Your task to perform on an android device: toggle show notifications on the lock screen Image 0: 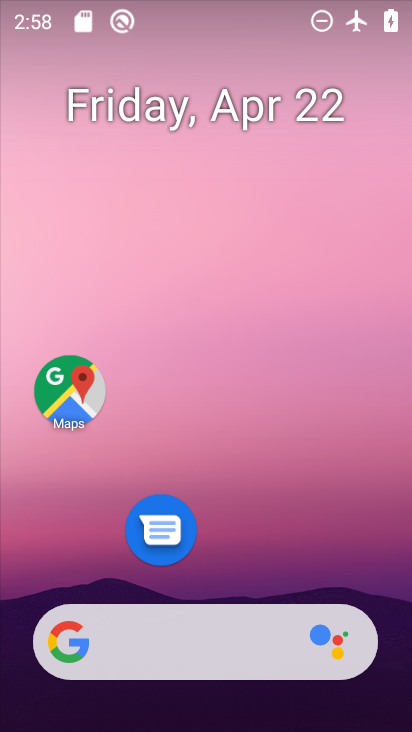
Step 0: drag from (299, 526) to (303, 4)
Your task to perform on an android device: toggle show notifications on the lock screen Image 1: 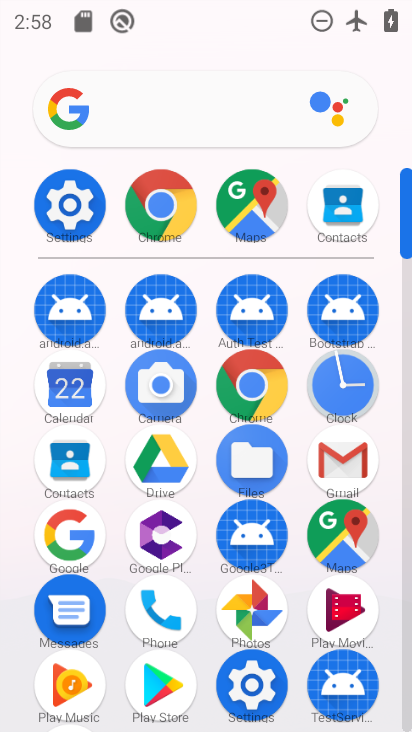
Step 1: click (65, 213)
Your task to perform on an android device: toggle show notifications on the lock screen Image 2: 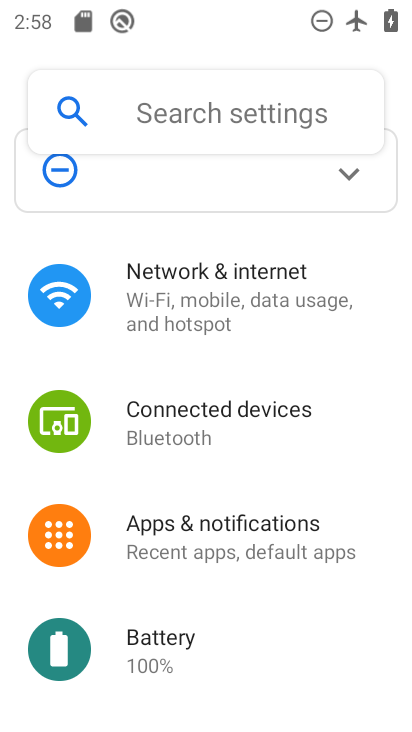
Step 2: click (211, 525)
Your task to perform on an android device: toggle show notifications on the lock screen Image 3: 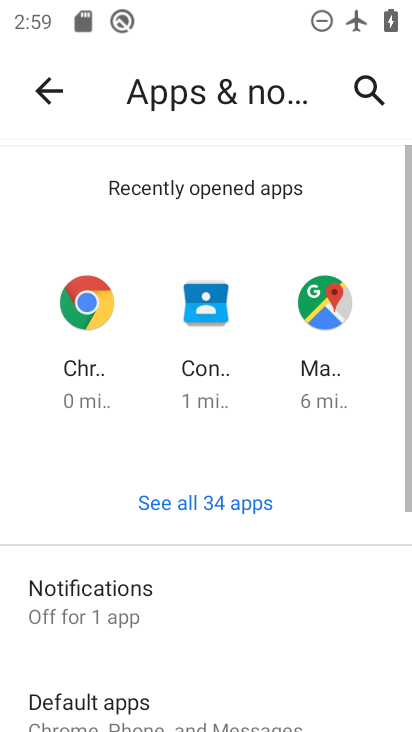
Step 3: drag from (228, 630) to (176, 219)
Your task to perform on an android device: toggle show notifications on the lock screen Image 4: 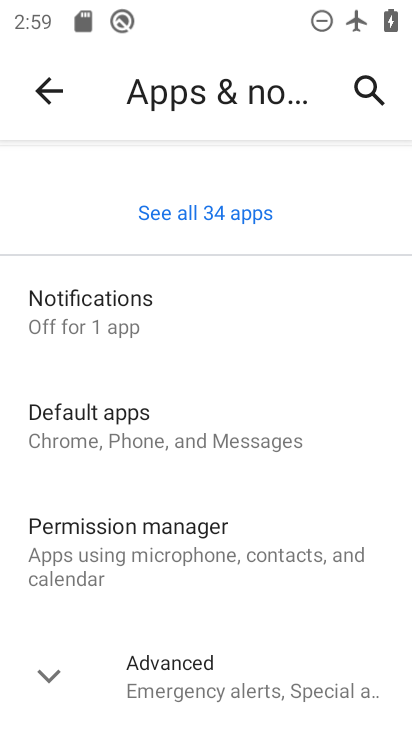
Step 4: click (84, 298)
Your task to perform on an android device: toggle show notifications on the lock screen Image 5: 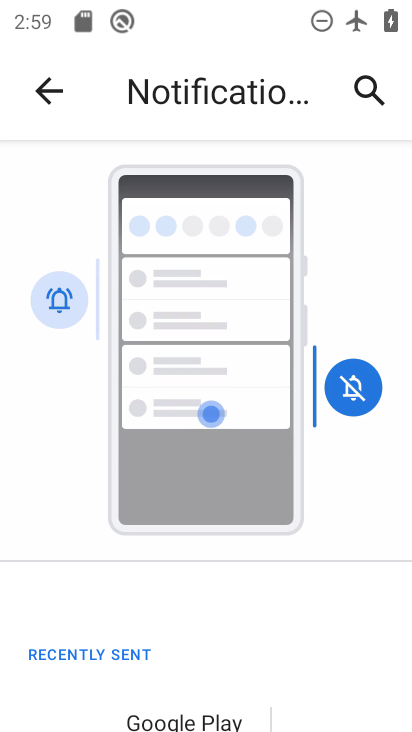
Step 5: drag from (241, 591) to (235, 92)
Your task to perform on an android device: toggle show notifications on the lock screen Image 6: 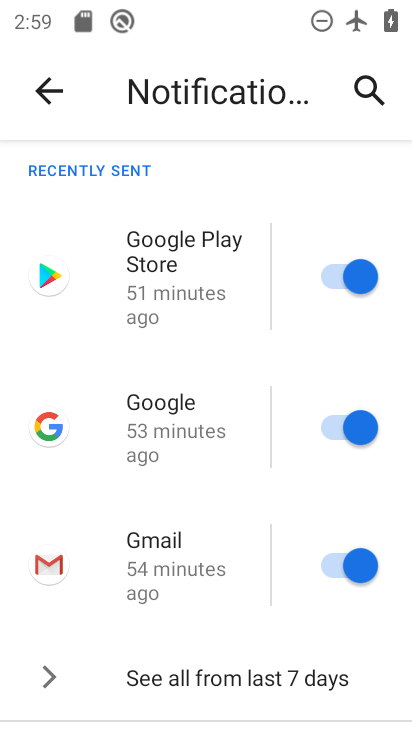
Step 6: click (204, 62)
Your task to perform on an android device: toggle show notifications on the lock screen Image 7: 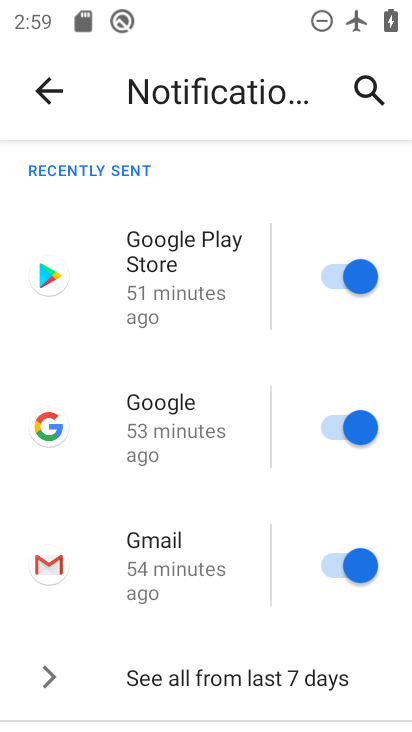
Step 7: drag from (233, 521) to (226, 171)
Your task to perform on an android device: toggle show notifications on the lock screen Image 8: 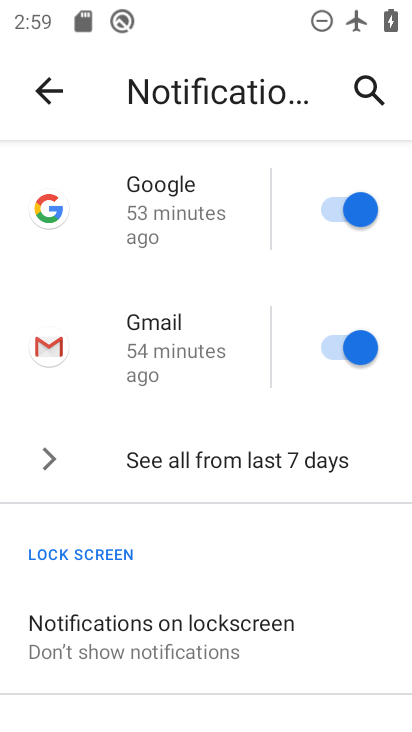
Step 8: click (168, 619)
Your task to perform on an android device: toggle show notifications on the lock screen Image 9: 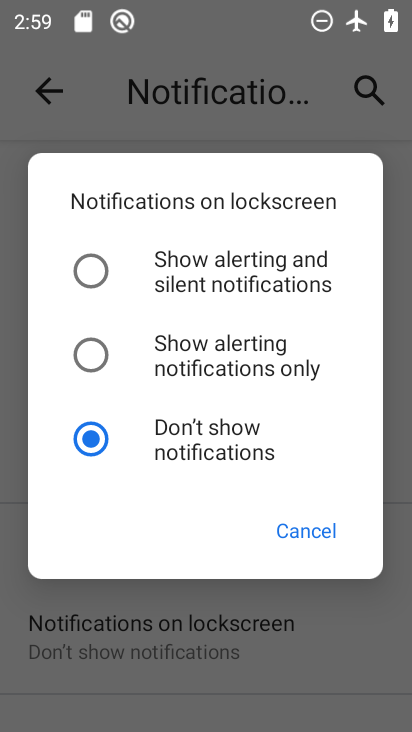
Step 9: click (87, 265)
Your task to perform on an android device: toggle show notifications on the lock screen Image 10: 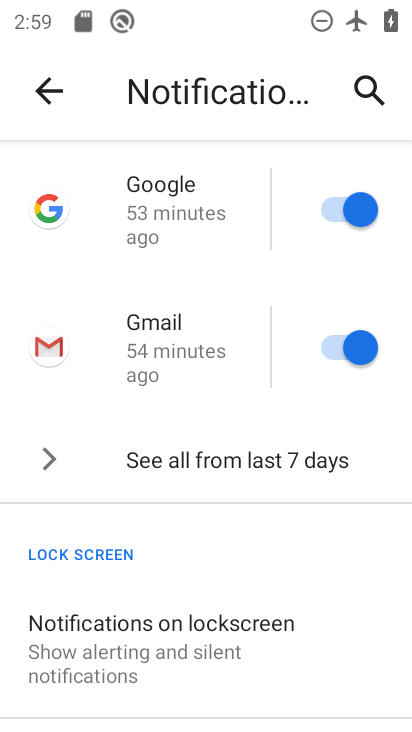
Step 10: task complete